Your task to perform on an android device: Open the map Image 0: 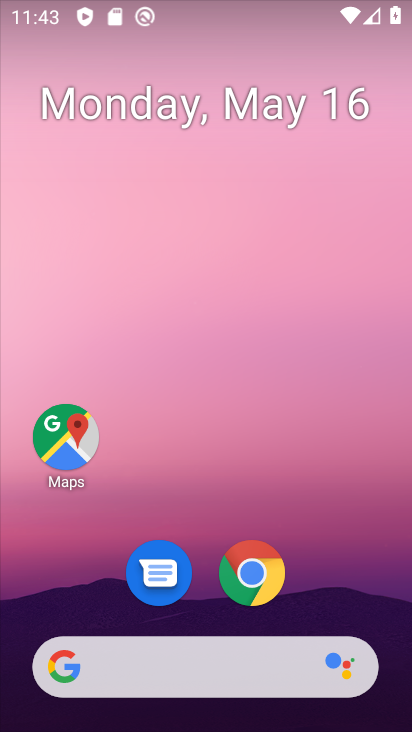
Step 0: click (59, 426)
Your task to perform on an android device: Open the map Image 1: 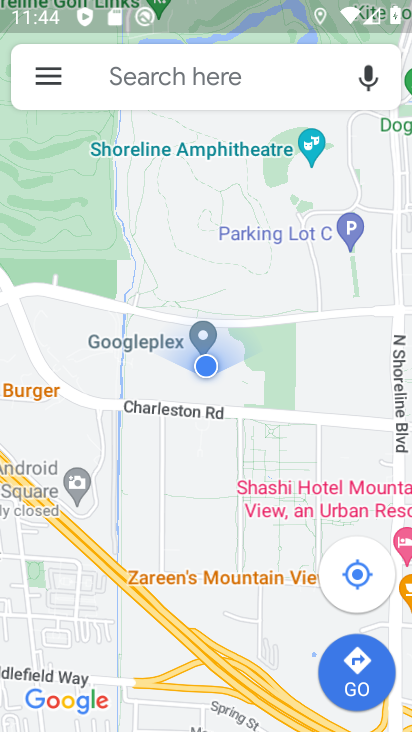
Step 1: task complete